Your task to perform on an android device: turn on location history Image 0: 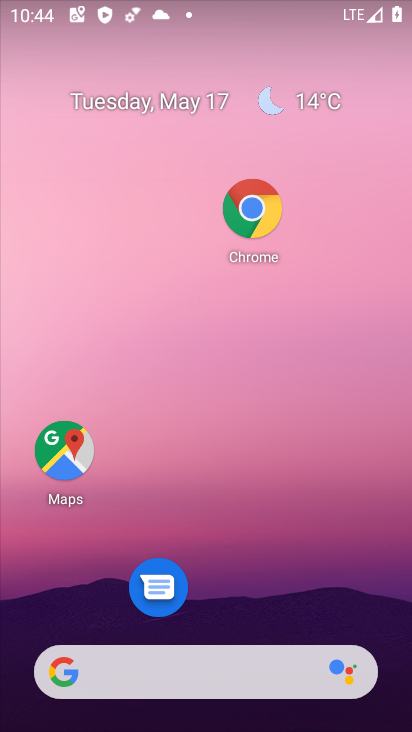
Step 0: drag from (270, 592) to (271, 59)
Your task to perform on an android device: turn on location history Image 1: 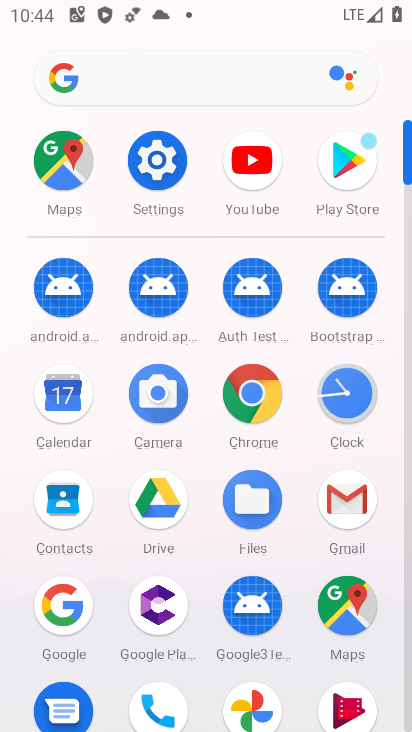
Step 1: click (165, 170)
Your task to perform on an android device: turn on location history Image 2: 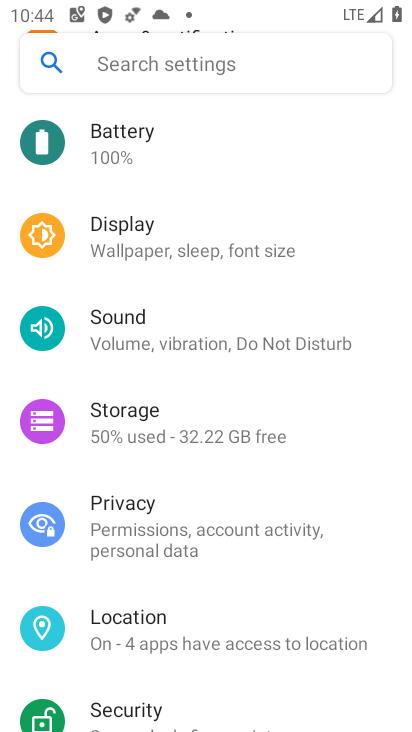
Step 2: click (255, 632)
Your task to perform on an android device: turn on location history Image 3: 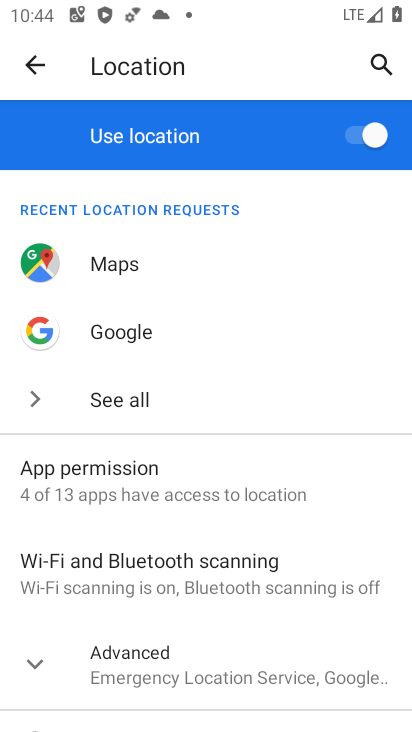
Step 3: click (242, 662)
Your task to perform on an android device: turn on location history Image 4: 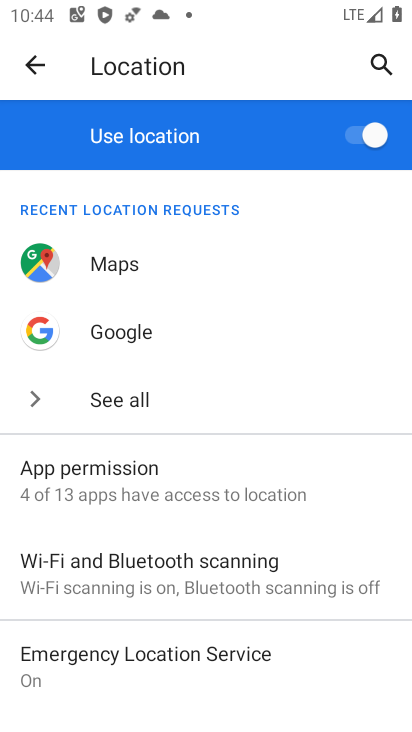
Step 4: drag from (311, 626) to (301, 324)
Your task to perform on an android device: turn on location history Image 5: 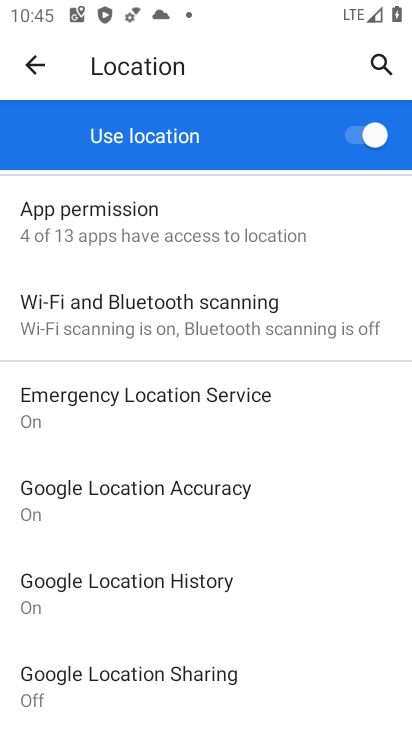
Step 5: click (156, 578)
Your task to perform on an android device: turn on location history Image 6: 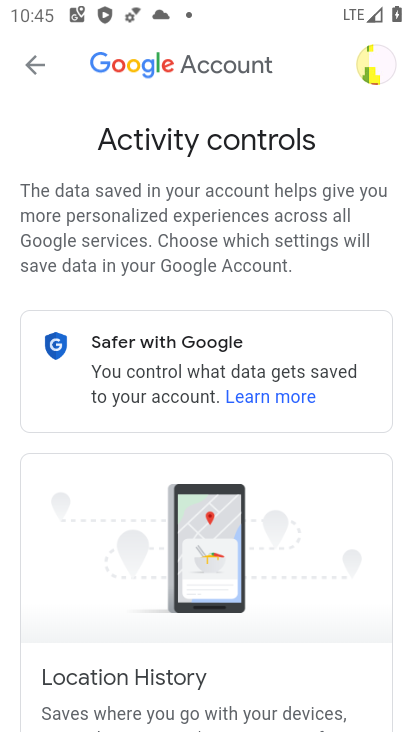
Step 6: task complete